Your task to perform on an android device: open chrome privacy settings Image 0: 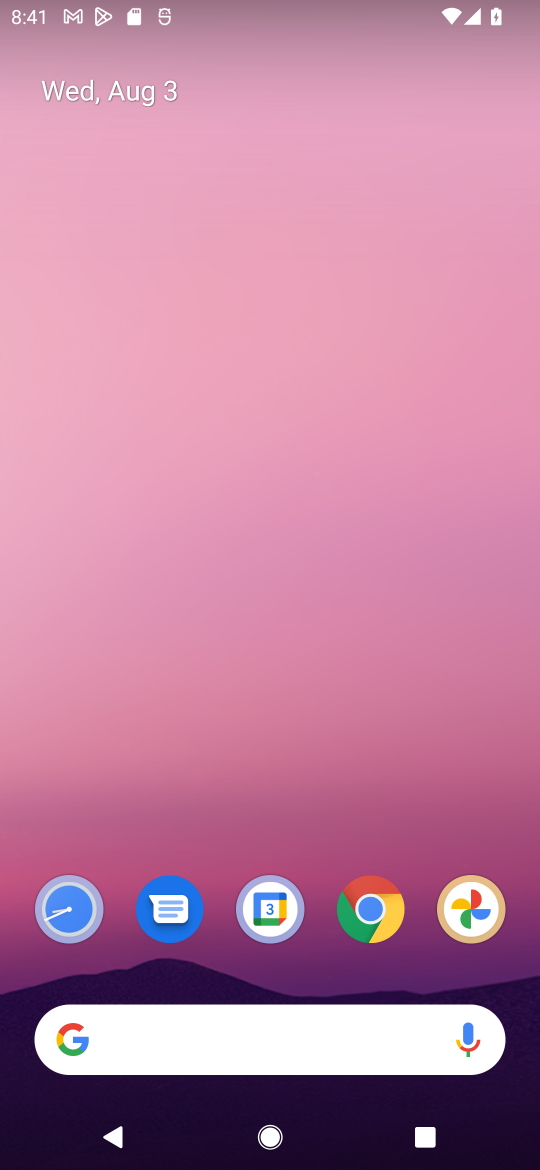
Step 0: drag from (385, 823) to (403, 222)
Your task to perform on an android device: open chrome privacy settings Image 1: 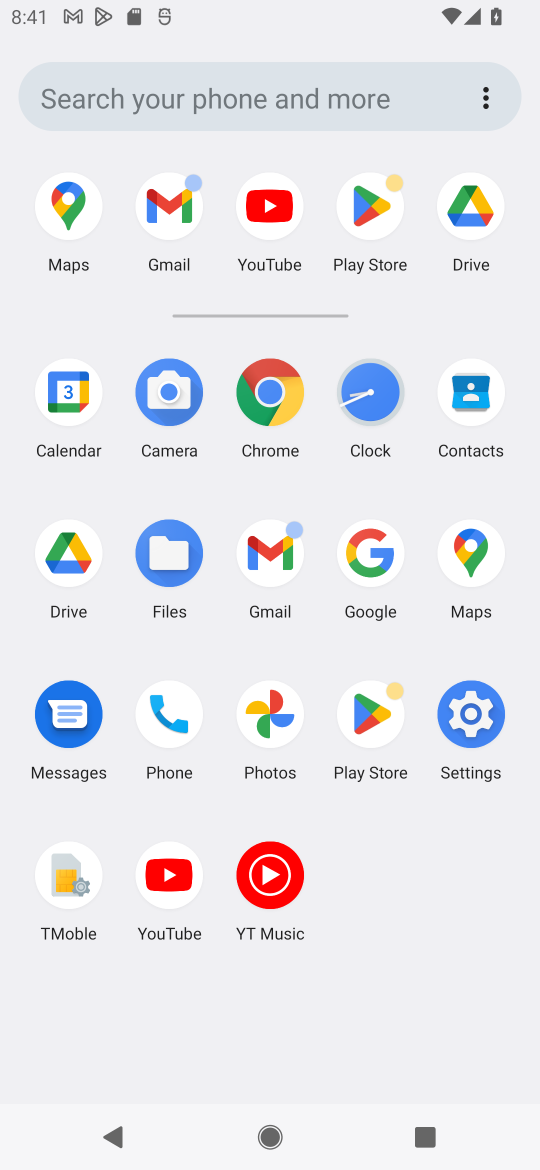
Step 1: click (274, 402)
Your task to perform on an android device: open chrome privacy settings Image 2: 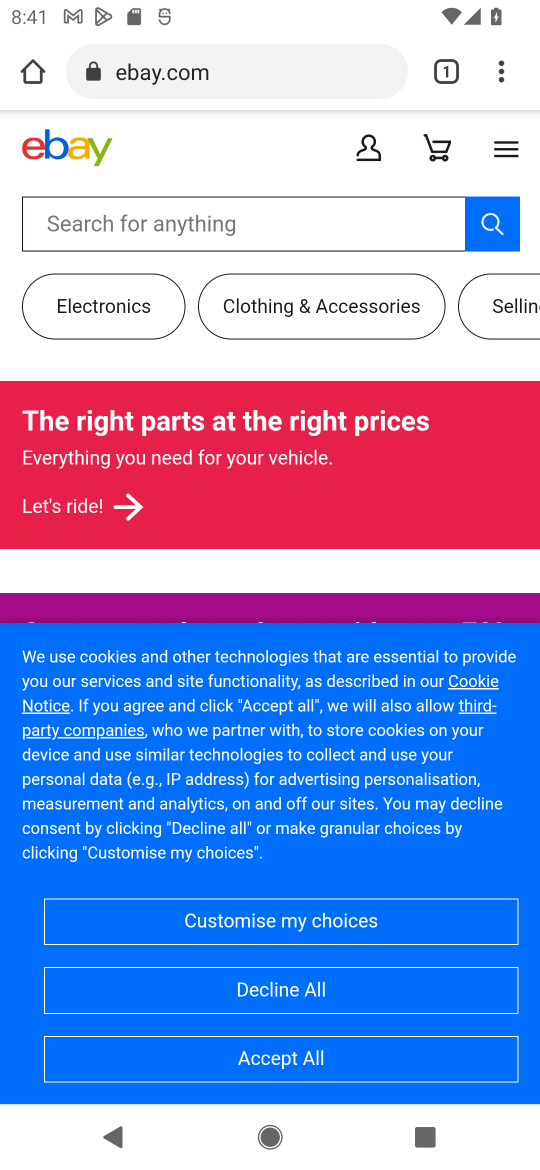
Step 2: click (505, 64)
Your task to perform on an android device: open chrome privacy settings Image 3: 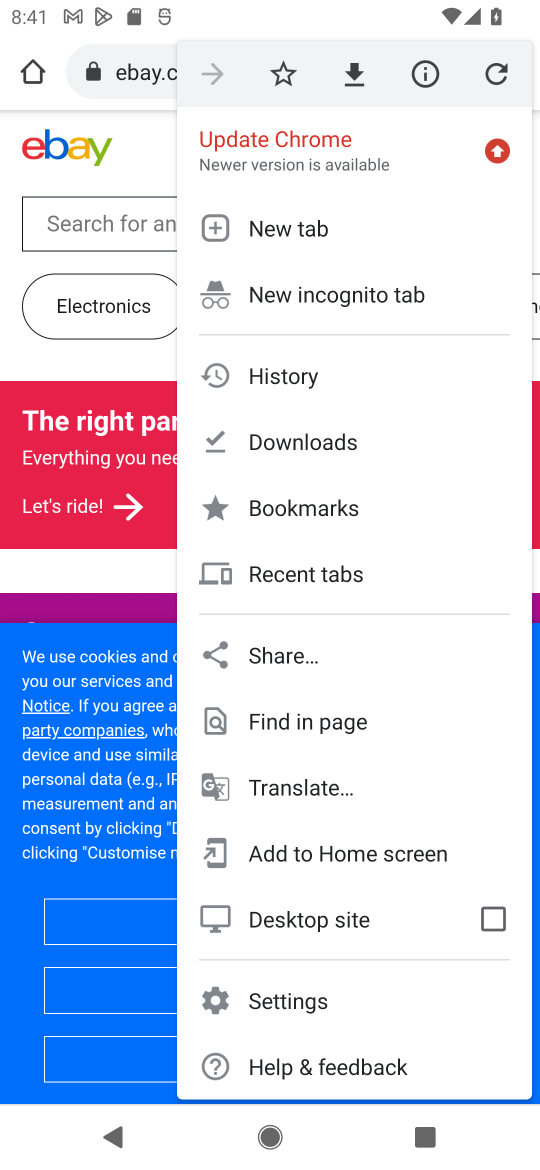
Step 3: drag from (440, 671) to (445, 502)
Your task to perform on an android device: open chrome privacy settings Image 4: 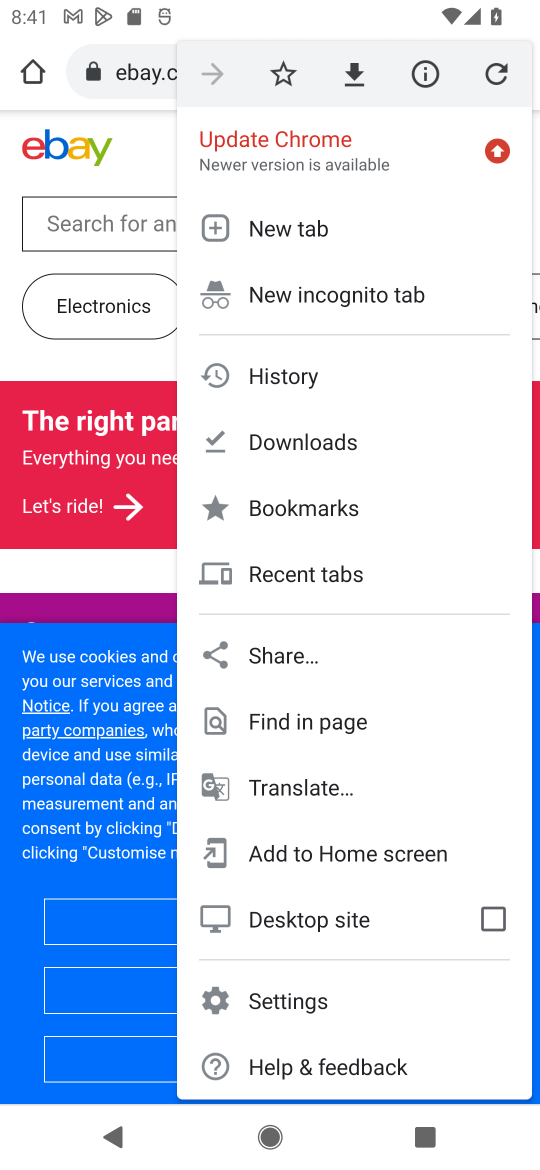
Step 4: click (309, 992)
Your task to perform on an android device: open chrome privacy settings Image 5: 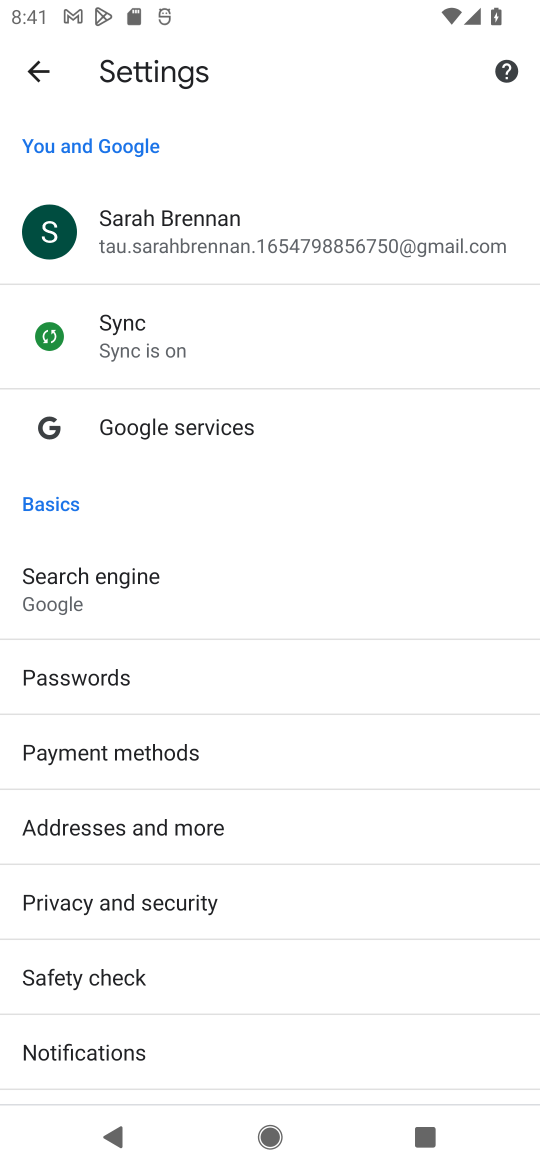
Step 5: drag from (359, 979) to (363, 787)
Your task to perform on an android device: open chrome privacy settings Image 6: 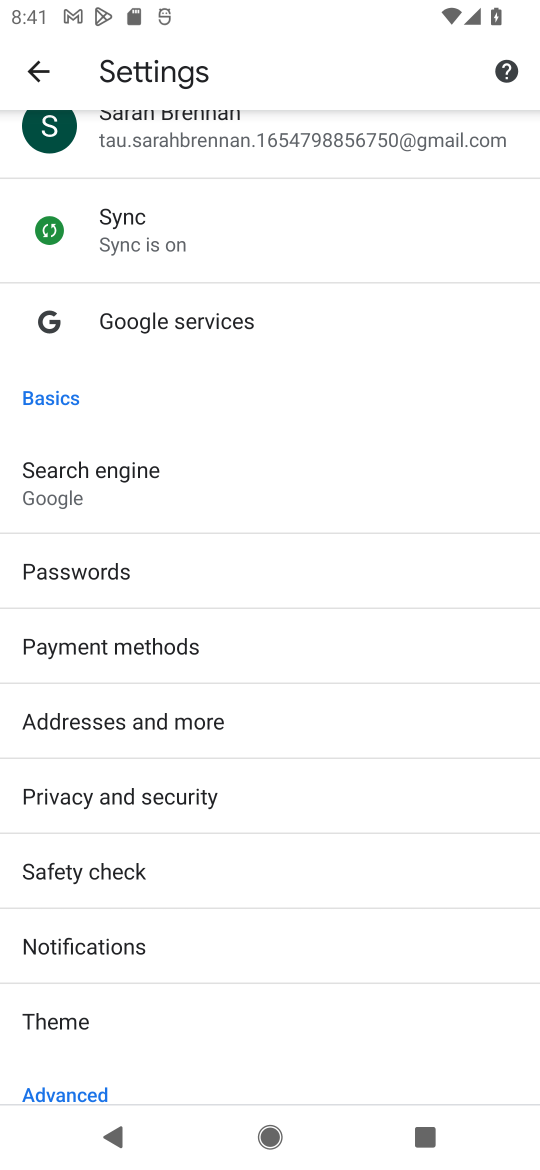
Step 6: drag from (371, 965) to (405, 772)
Your task to perform on an android device: open chrome privacy settings Image 7: 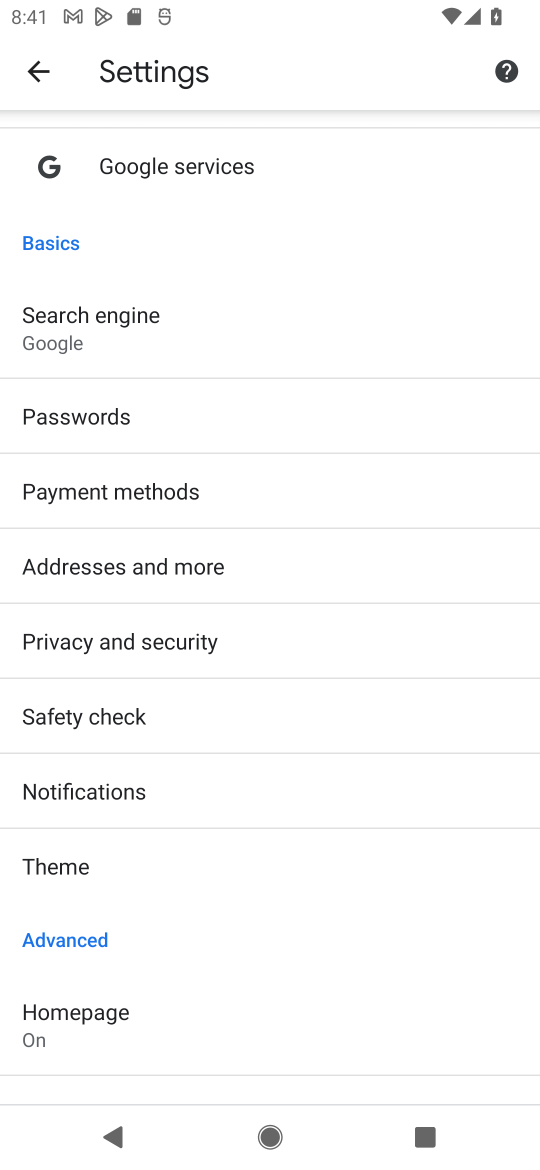
Step 7: drag from (388, 943) to (404, 738)
Your task to perform on an android device: open chrome privacy settings Image 8: 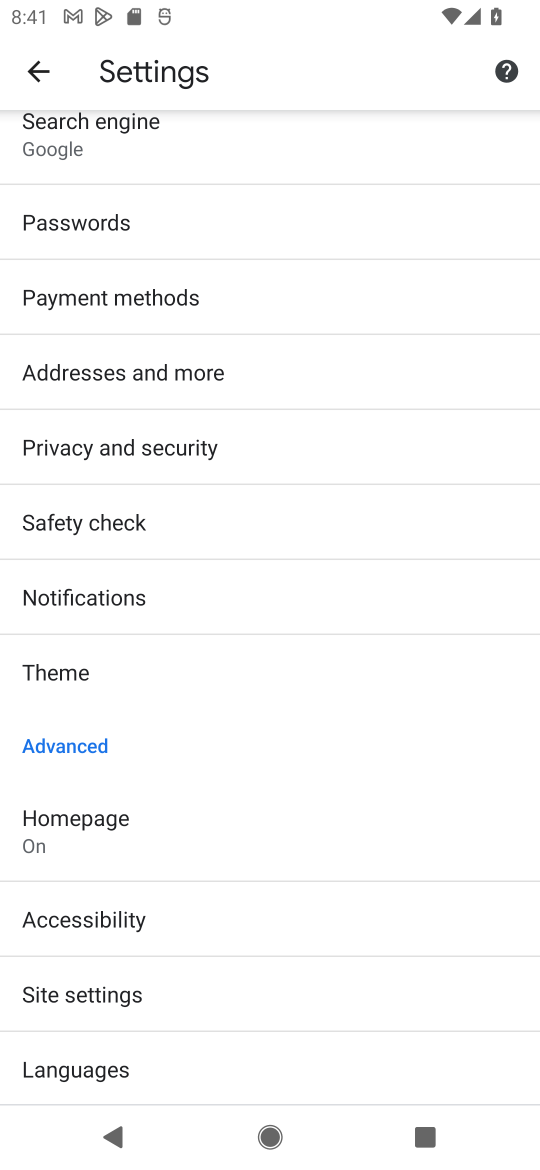
Step 8: drag from (381, 924) to (384, 733)
Your task to perform on an android device: open chrome privacy settings Image 9: 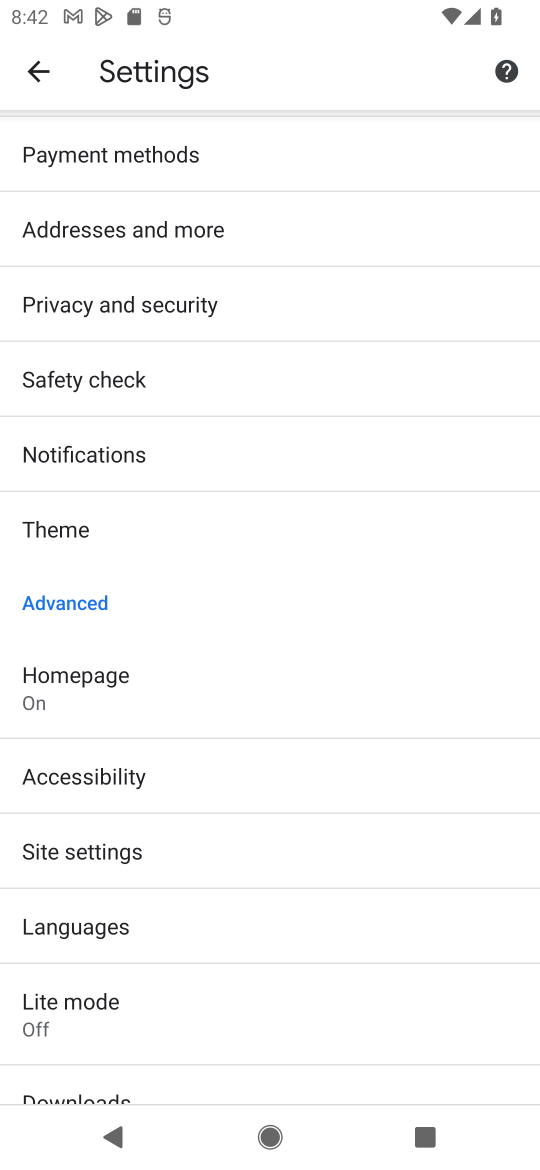
Step 9: click (199, 313)
Your task to perform on an android device: open chrome privacy settings Image 10: 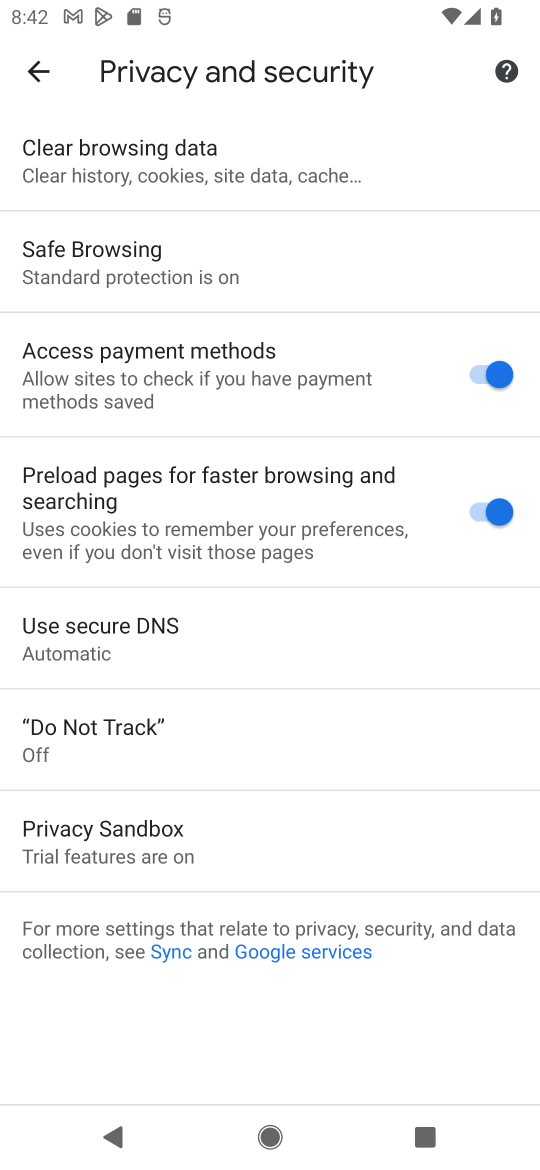
Step 10: task complete